Your task to perform on an android device: Open the Play Movies app and select the watchlist tab. Image 0: 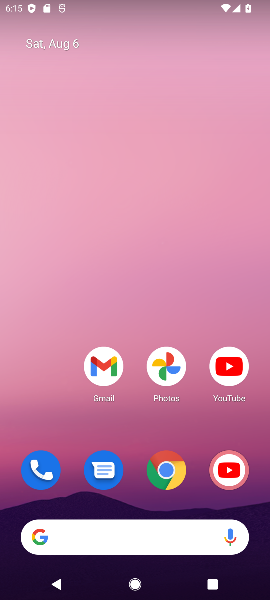
Step 0: drag from (134, 474) to (169, 12)
Your task to perform on an android device: Open the Play Movies app and select the watchlist tab. Image 1: 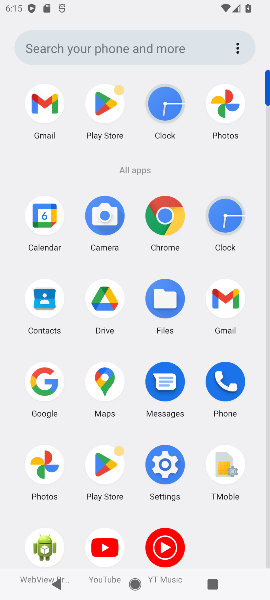
Step 1: task complete